Your task to perform on an android device: Open the map Image 0: 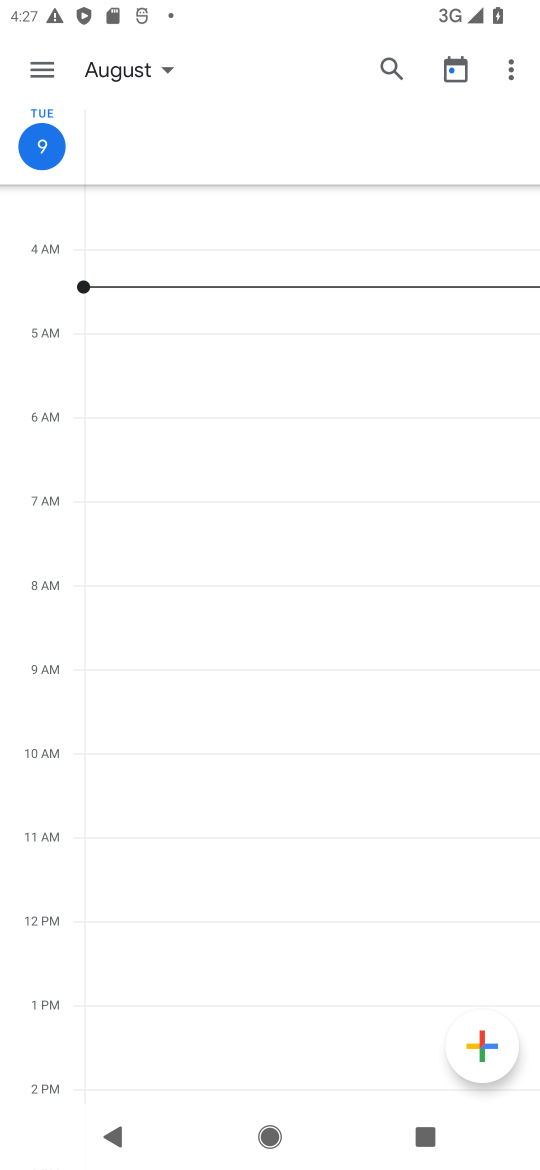
Step 0: press home button
Your task to perform on an android device: Open the map Image 1: 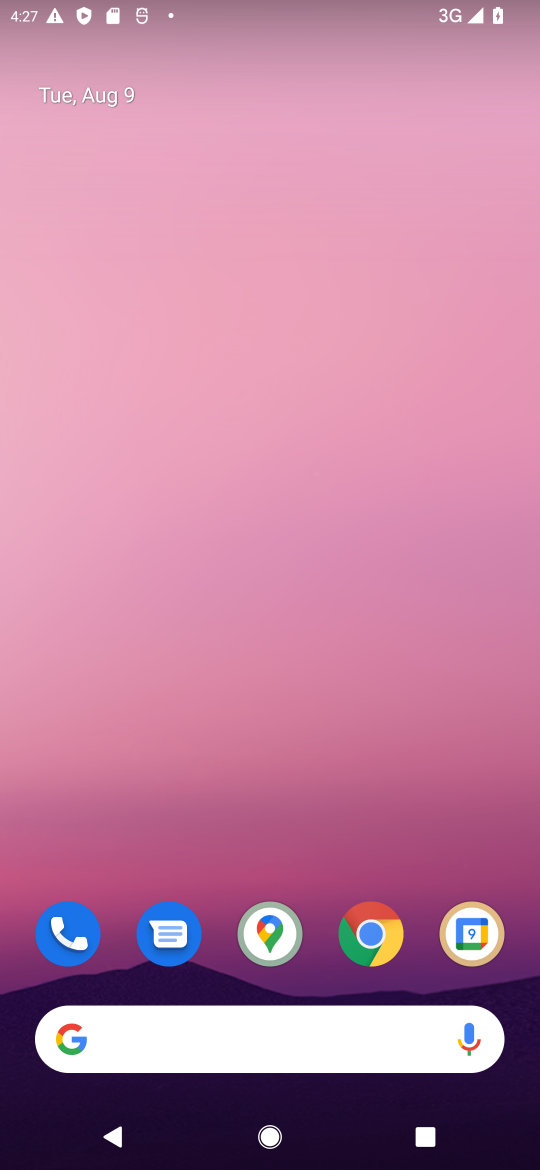
Step 1: click (283, 966)
Your task to perform on an android device: Open the map Image 2: 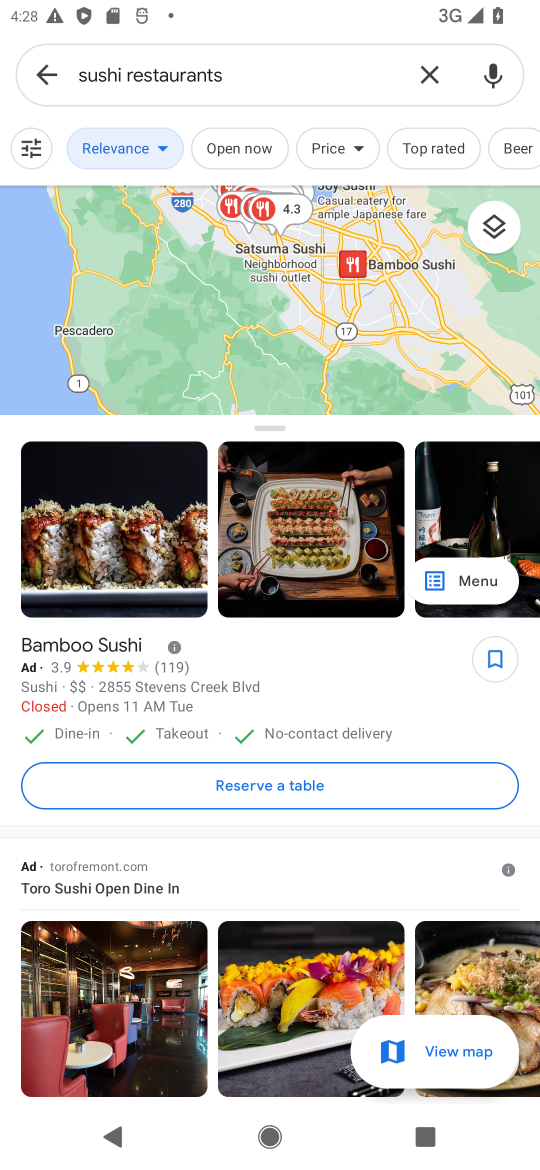
Step 2: task complete